Your task to perform on an android device: What's the weather going to be tomorrow? Image 0: 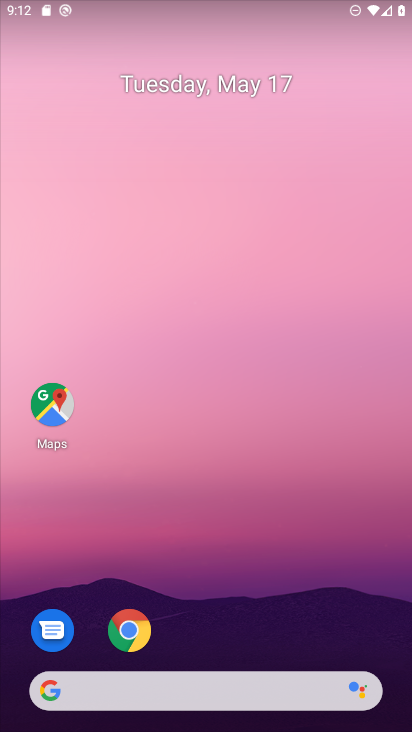
Step 0: click (206, 695)
Your task to perform on an android device: What's the weather going to be tomorrow? Image 1: 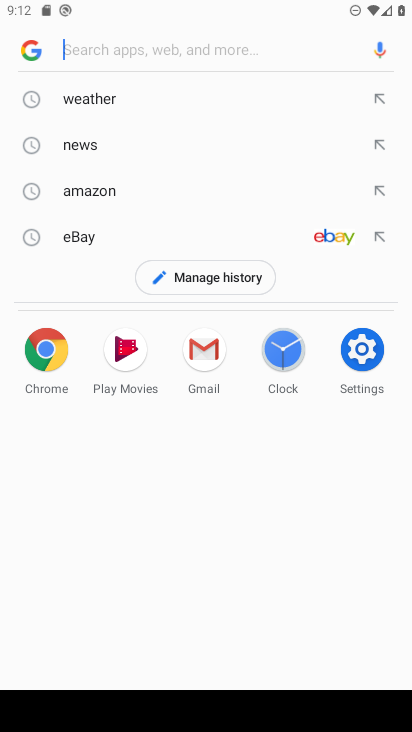
Step 1: click (103, 99)
Your task to perform on an android device: What's the weather going to be tomorrow? Image 2: 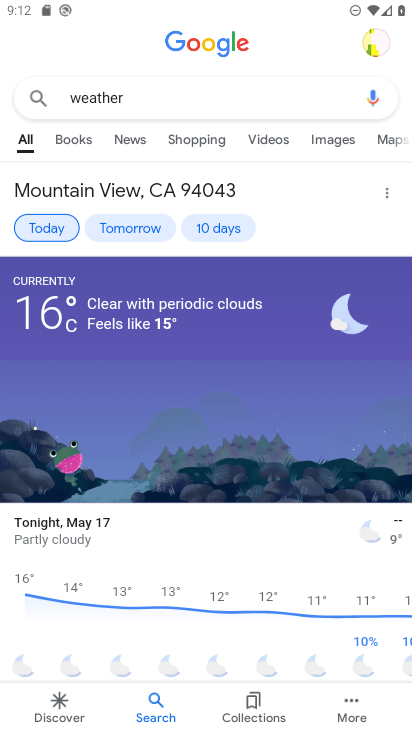
Step 2: click (145, 230)
Your task to perform on an android device: What's the weather going to be tomorrow? Image 3: 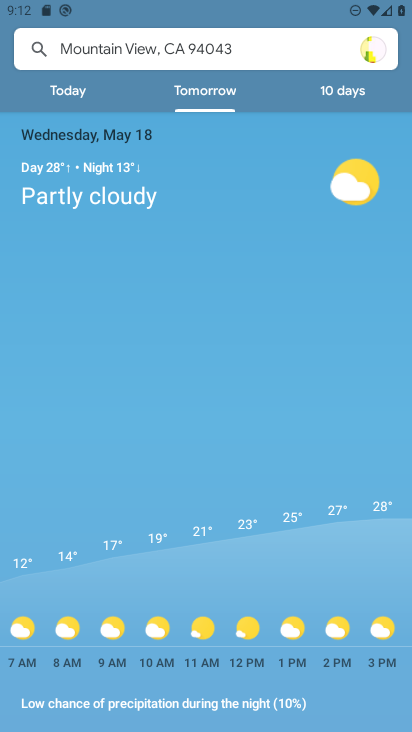
Step 3: task complete